Your task to perform on an android device: Open Google Chrome and click the shortcut for Amazon.com Image 0: 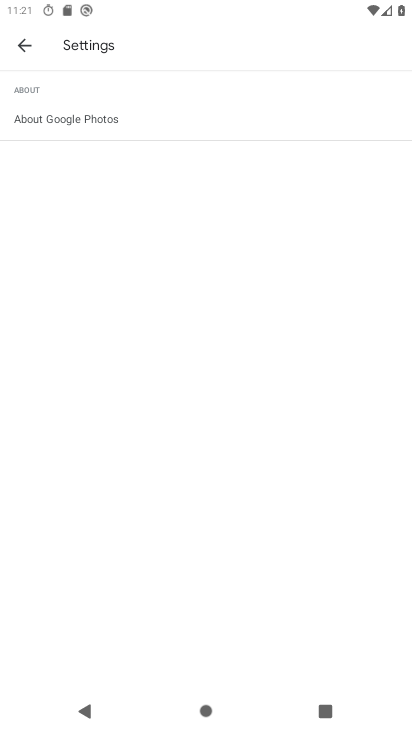
Step 0: press home button
Your task to perform on an android device: Open Google Chrome and click the shortcut for Amazon.com Image 1: 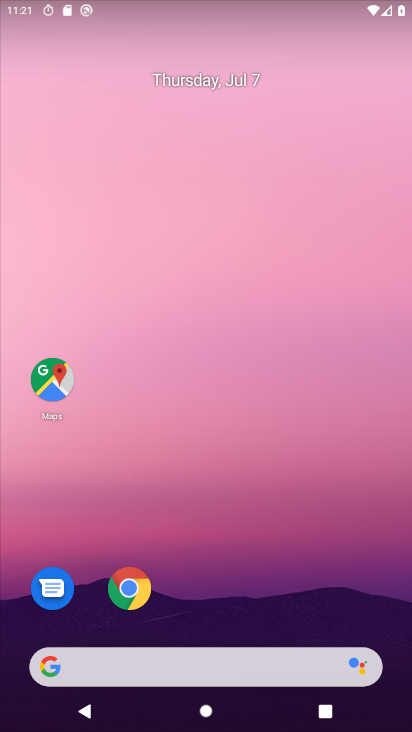
Step 1: click (138, 591)
Your task to perform on an android device: Open Google Chrome and click the shortcut for Amazon.com Image 2: 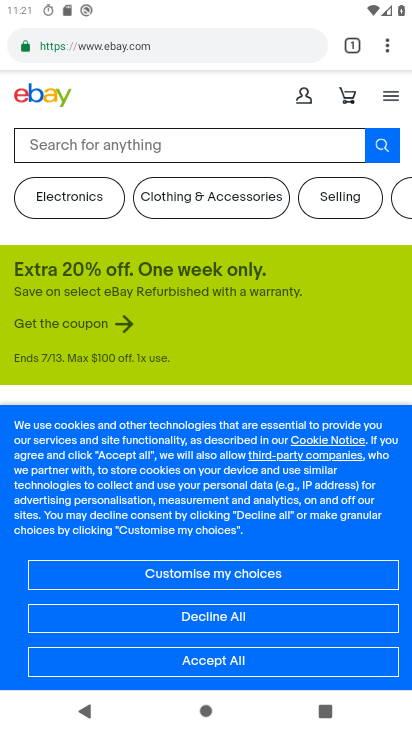
Step 2: drag from (386, 49) to (286, 89)
Your task to perform on an android device: Open Google Chrome and click the shortcut for Amazon.com Image 3: 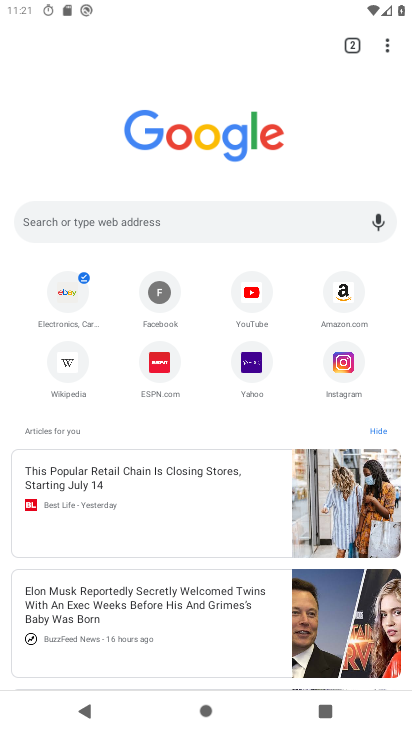
Step 3: click (340, 291)
Your task to perform on an android device: Open Google Chrome and click the shortcut for Amazon.com Image 4: 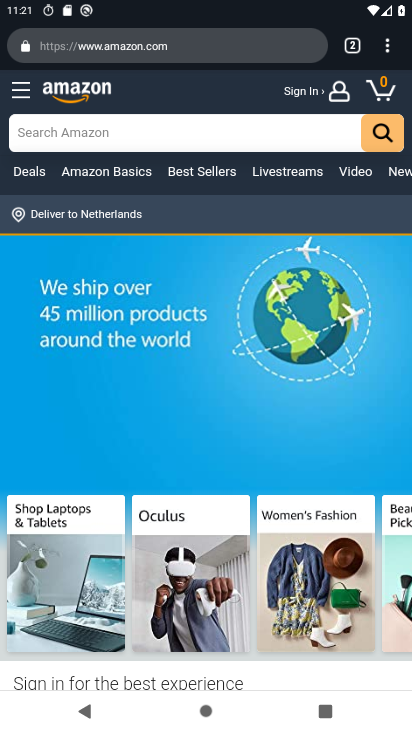
Step 4: task complete